Your task to perform on an android device: Turn off the flashlight Image 0: 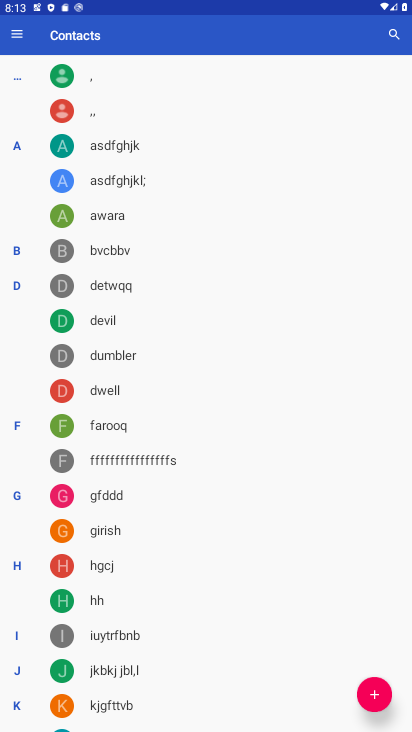
Step 0: press home button
Your task to perform on an android device: Turn off the flashlight Image 1: 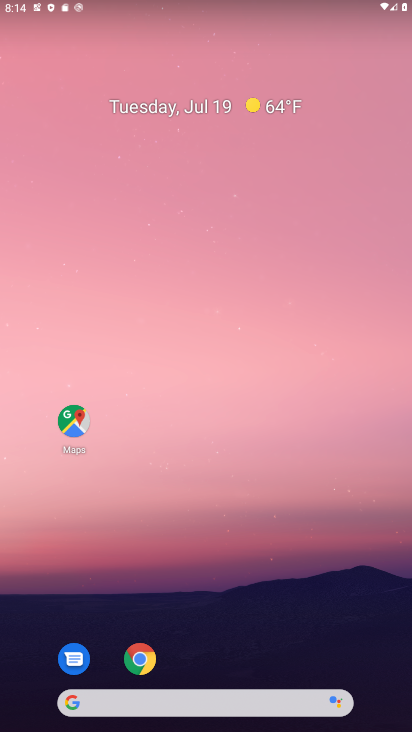
Step 1: drag from (290, 663) to (232, 199)
Your task to perform on an android device: Turn off the flashlight Image 2: 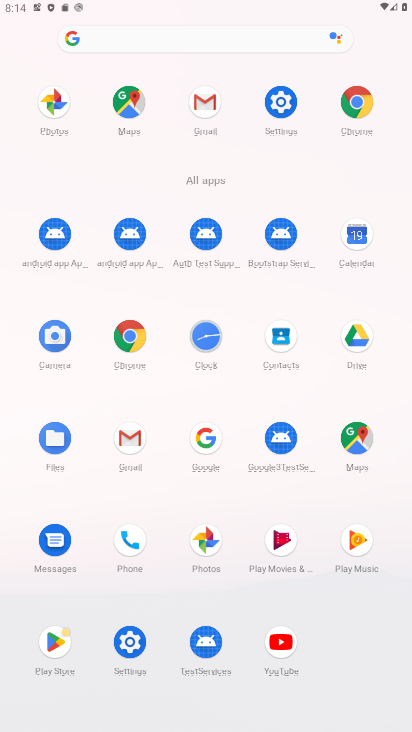
Step 2: click (282, 96)
Your task to perform on an android device: Turn off the flashlight Image 3: 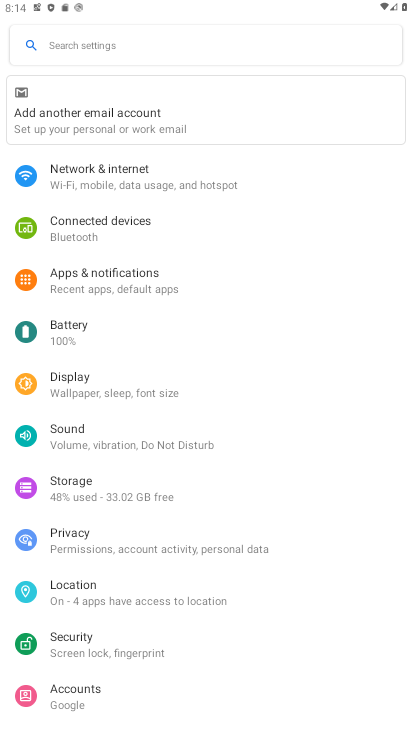
Step 3: task complete